Your task to perform on an android device: Do I have any events today? Image 0: 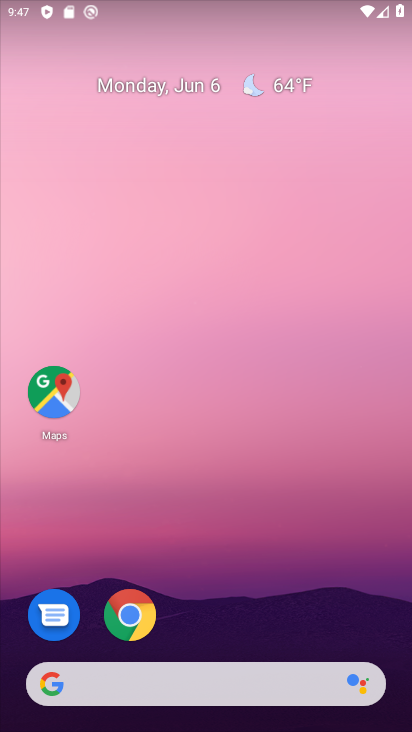
Step 0: click (255, 86)
Your task to perform on an android device: Do I have any events today? Image 1: 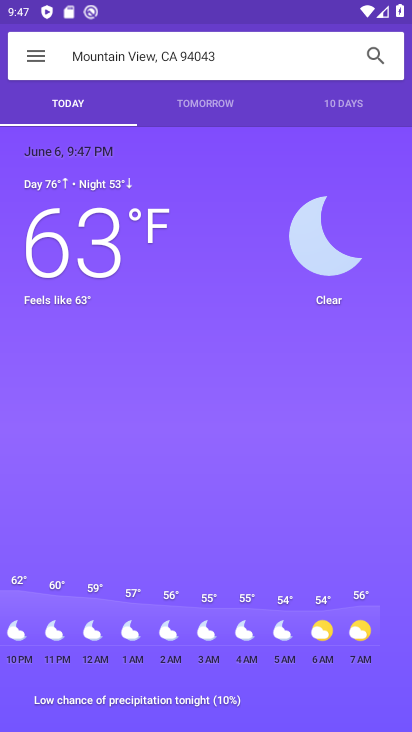
Step 1: task complete